Your task to perform on an android device: open wifi settings Image 0: 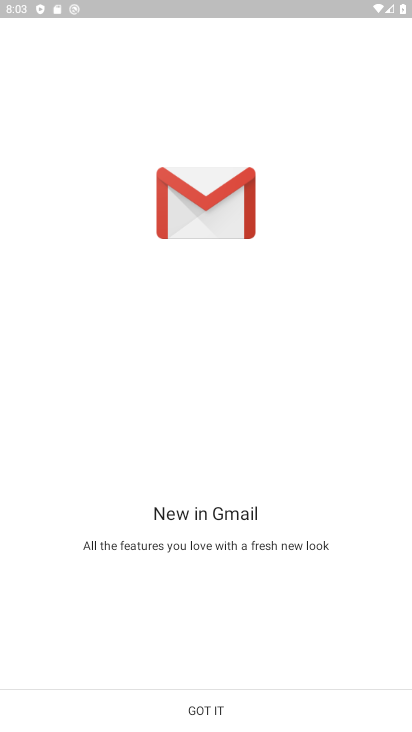
Step 0: click (196, 699)
Your task to perform on an android device: open wifi settings Image 1: 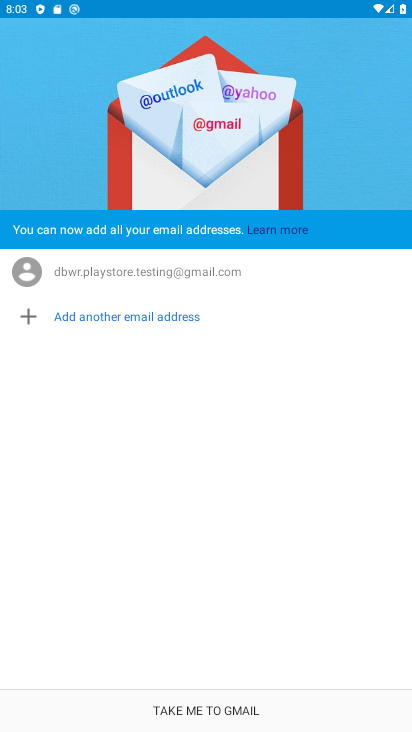
Step 1: task complete